Your task to perform on an android device: turn off priority inbox in the gmail app Image 0: 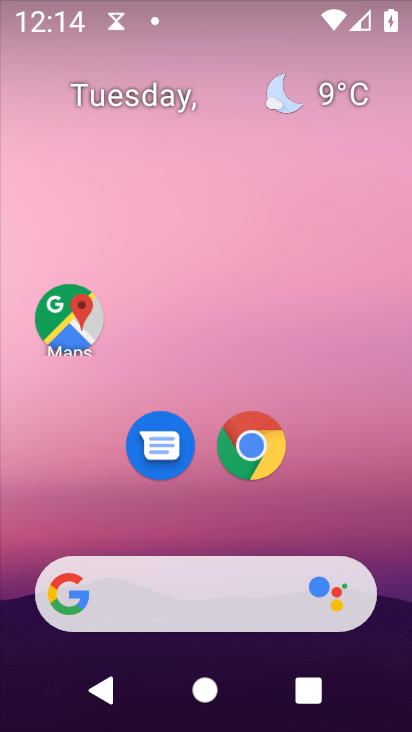
Step 0: drag from (308, 569) to (306, 1)
Your task to perform on an android device: turn off priority inbox in the gmail app Image 1: 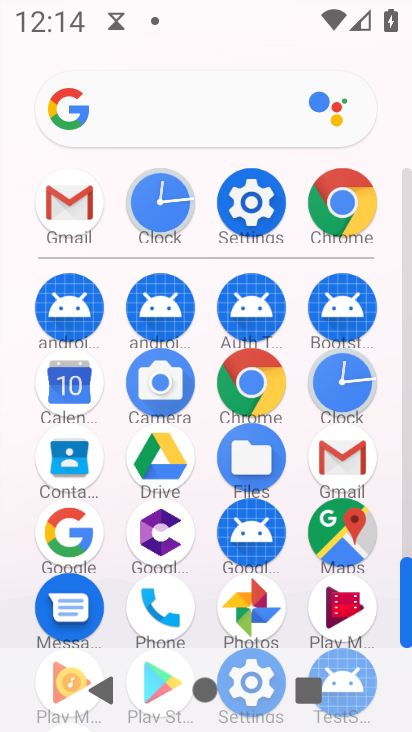
Step 1: click (321, 453)
Your task to perform on an android device: turn off priority inbox in the gmail app Image 2: 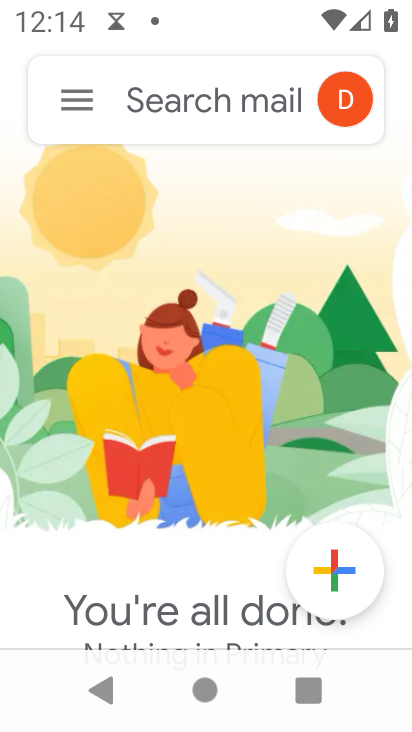
Step 2: drag from (70, 93) to (119, 435)
Your task to perform on an android device: turn off priority inbox in the gmail app Image 3: 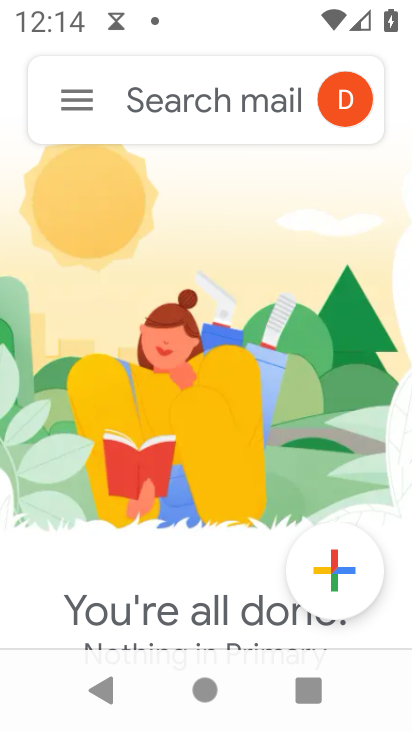
Step 3: click (73, 96)
Your task to perform on an android device: turn off priority inbox in the gmail app Image 4: 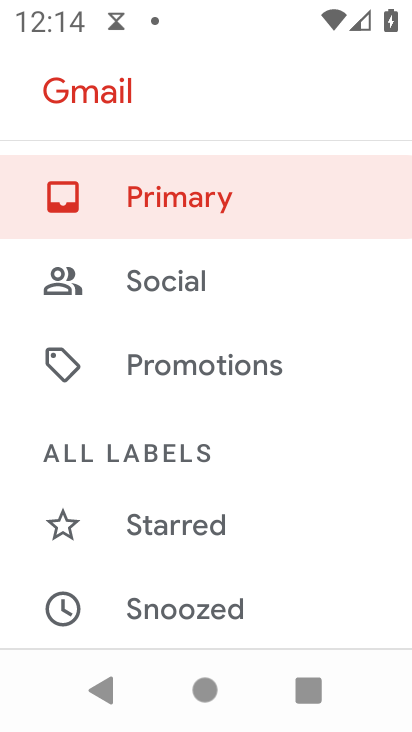
Step 4: drag from (225, 585) to (204, 64)
Your task to perform on an android device: turn off priority inbox in the gmail app Image 5: 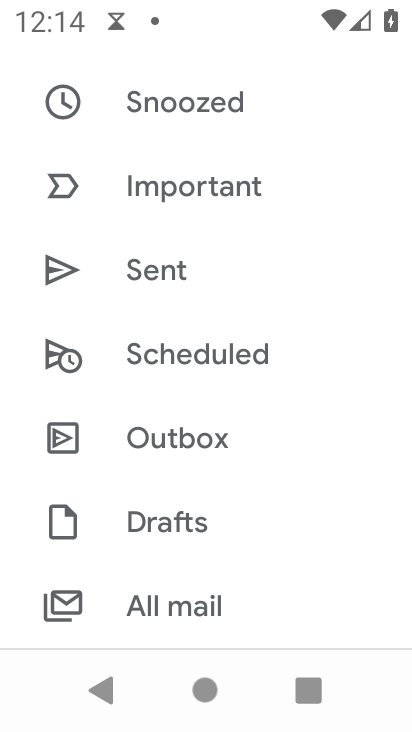
Step 5: drag from (317, 544) to (366, 57)
Your task to perform on an android device: turn off priority inbox in the gmail app Image 6: 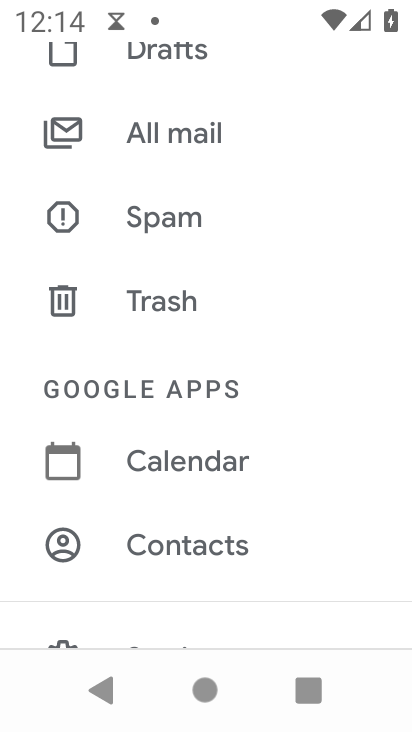
Step 6: drag from (217, 607) to (200, 258)
Your task to perform on an android device: turn off priority inbox in the gmail app Image 7: 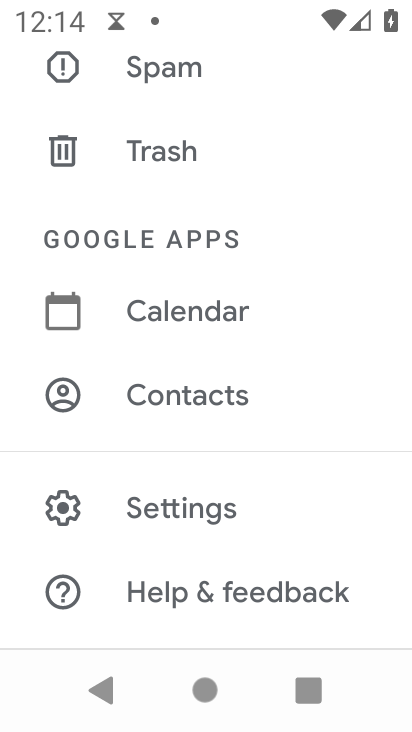
Step 7: click (191, 503)
Your task to perform on an android device: turn off priority inbox in the gmail app Image 8: 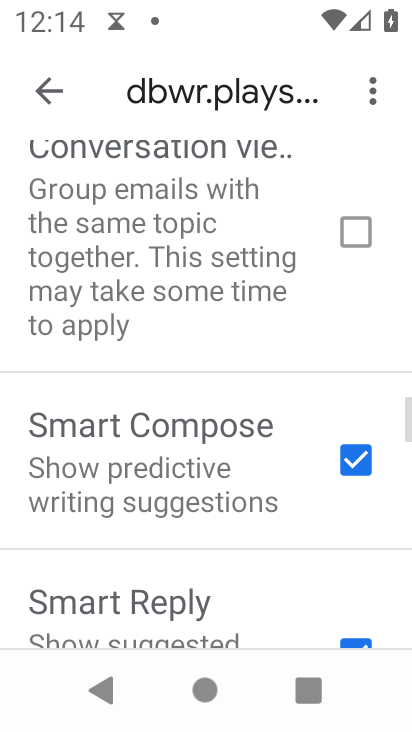
Step 8: drag from (157, 133) to (210, 675)
Your task to perform on an android device: turn off priority inbox in the gmail app Image 9: 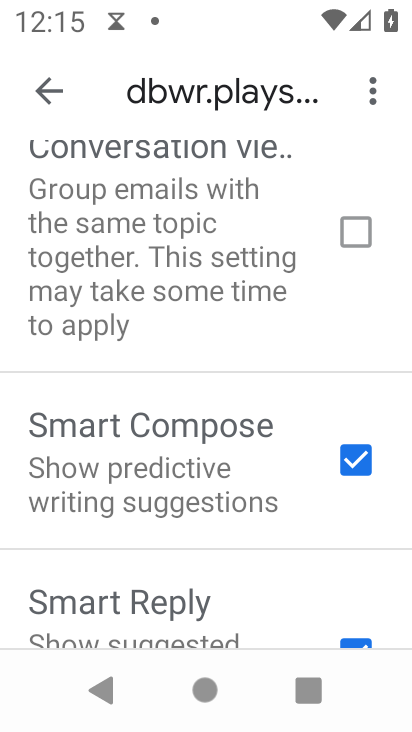
Step 9: drag from (136, 317) to (184, 731)
Your task to perform on an android device: turn off priority inbox in the gmail app Image 10: 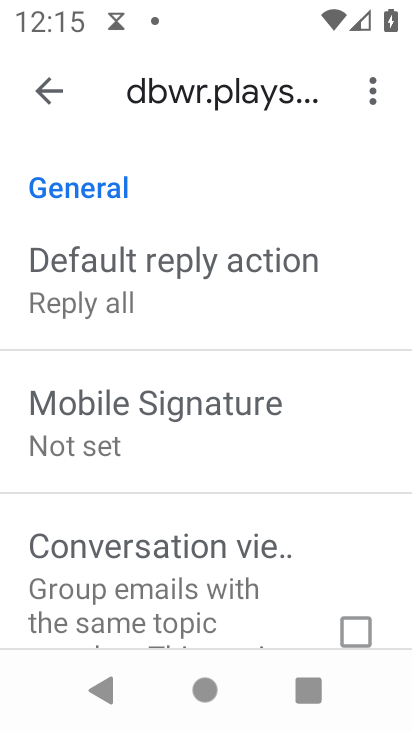
Step 10: drag from (160, 307) to (236, 724)
Your task to perform on an android device: turn off priority inbox in the gmail app Image 11: 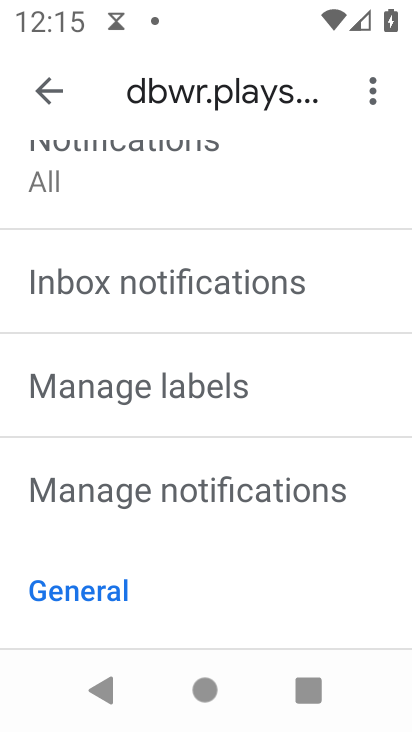
Step 11: drag from (144, 237) to (156, 713)
Your task to perform on an android device: turn off priority inbox in the gmail app Image 12: 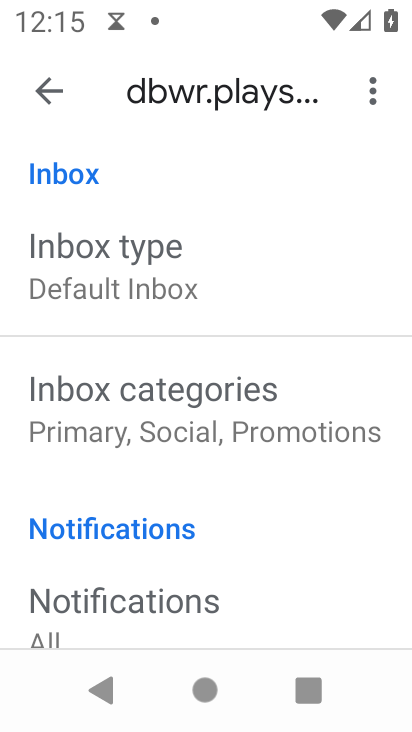
Step 12: drag from (143, 234) to (204, 653)
Your task to perform on an android device: turn off priority inbox in the gmail app Image 13: 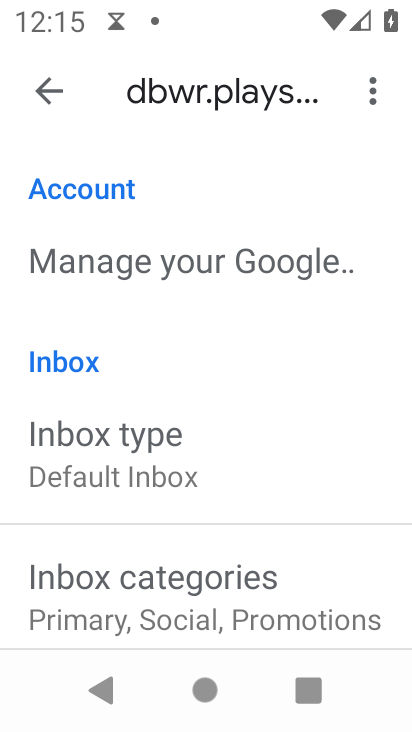
Step 13: click (140, 482)
Your task to perform on an android device: turn off priority inbox in the gmail app Image 14: 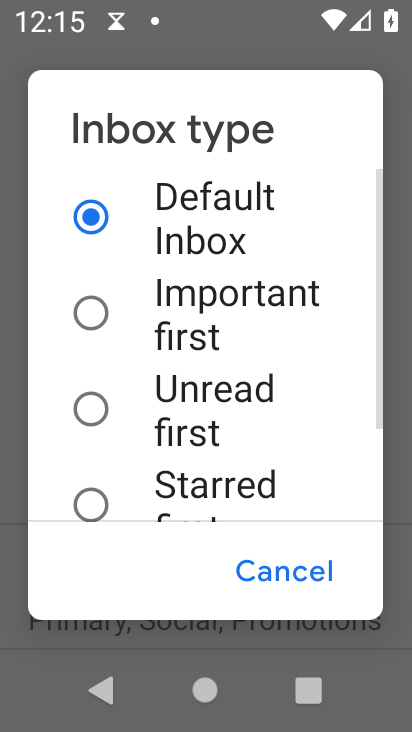
Step 14: click (99, 309)
Your task to perform on an android device: turn off priority inbox in the gmail app Image 15: 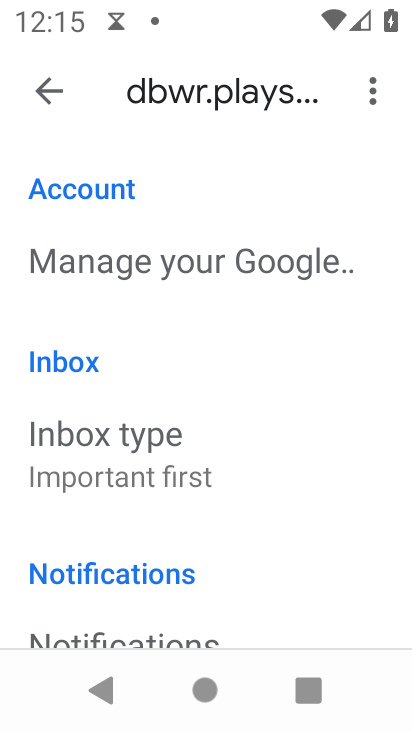
Step 15: task complete